Your task to perform on an android device: Open Wikipedia Image 0: 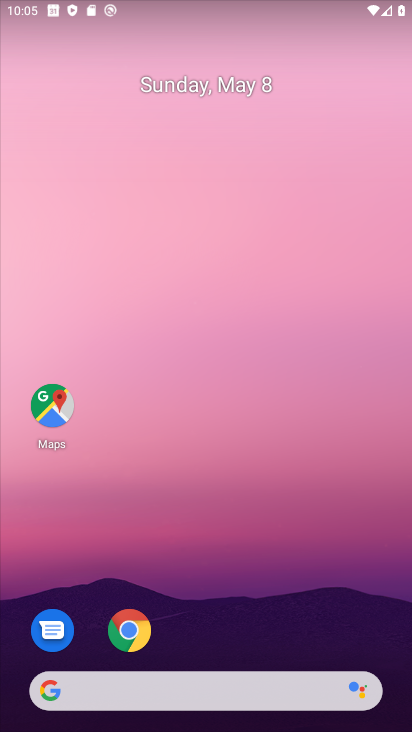
Step 0: click (127, 629)
Your task to perform on an android device: Open Wikipedia Image 1: 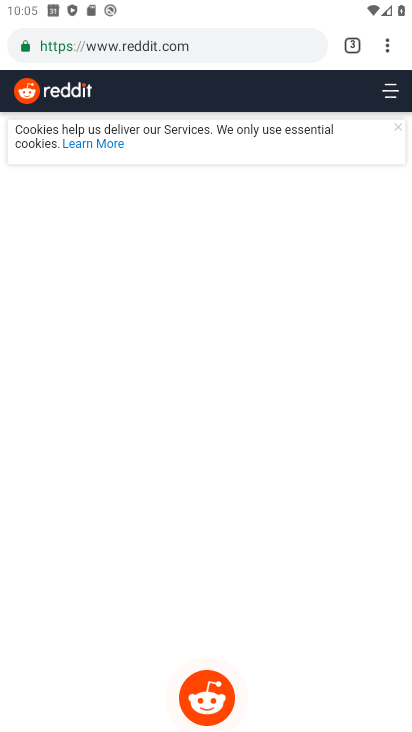
Step 1: click (389, 48)
Your task to perform on an android device: Open Wikipedia Image 2: 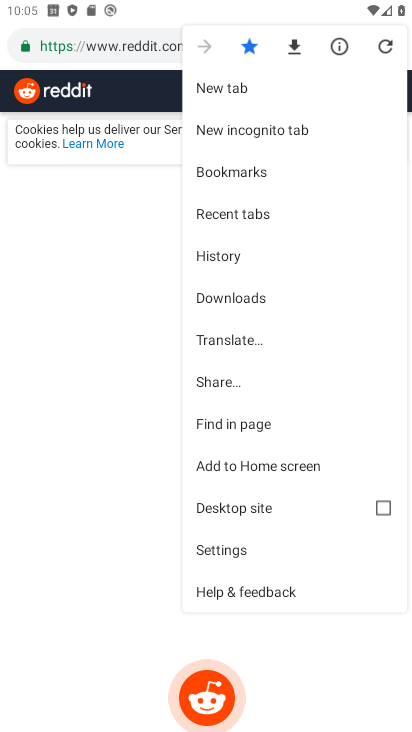
Step 2: click (224, 83)
Your task to perform on an android device: Open Wikipedia Image 3: 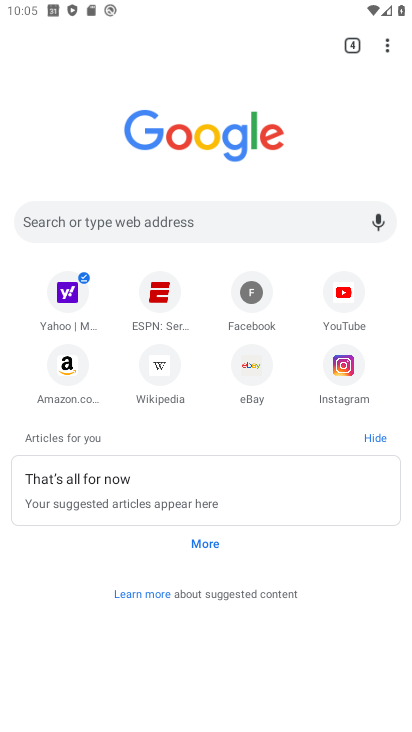
Step 3: click (158, 375)
Your task to perform on an android device: Open Wikipedia Image 4: 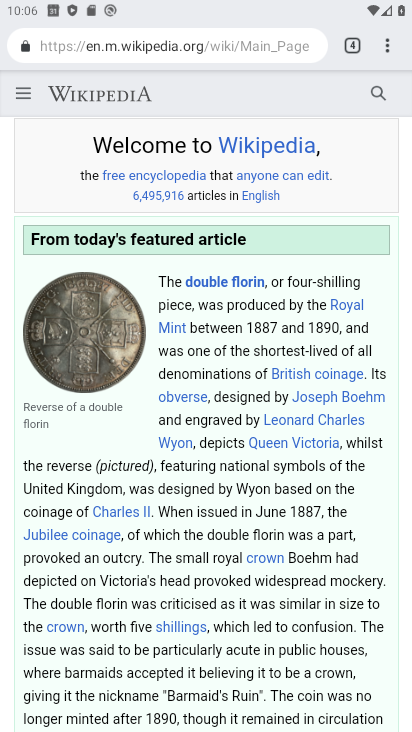
Step 4: task complete